Your task to perform on an android device: set the timer Image 0: 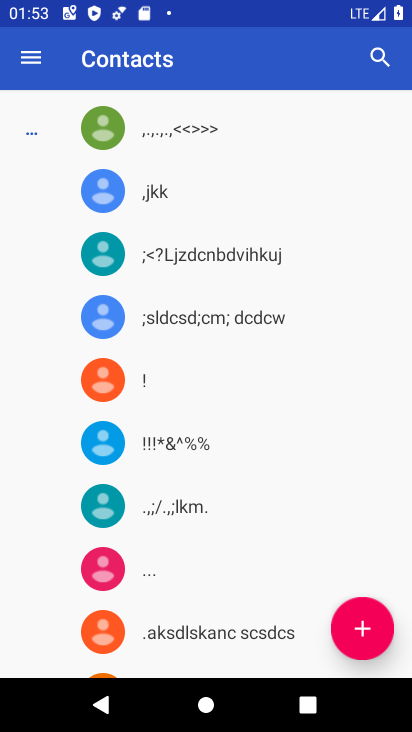
Step 0: press home button
Your task to perform on an android device: set the timer Image 1: 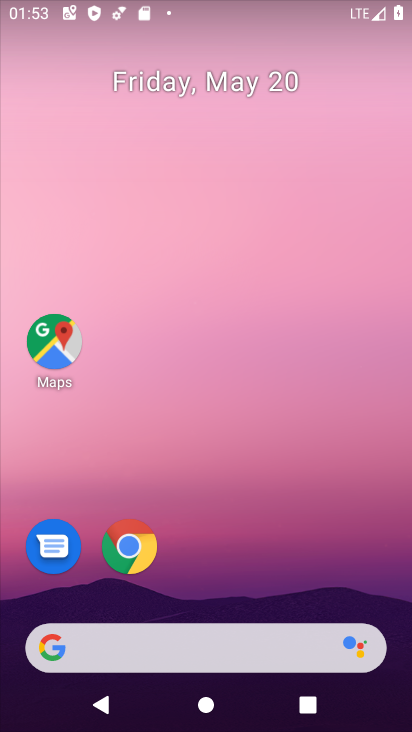
Step 1: drag from (220, 608) to (374, 438)
Your task to perform on an android device: set the timer Image 2: 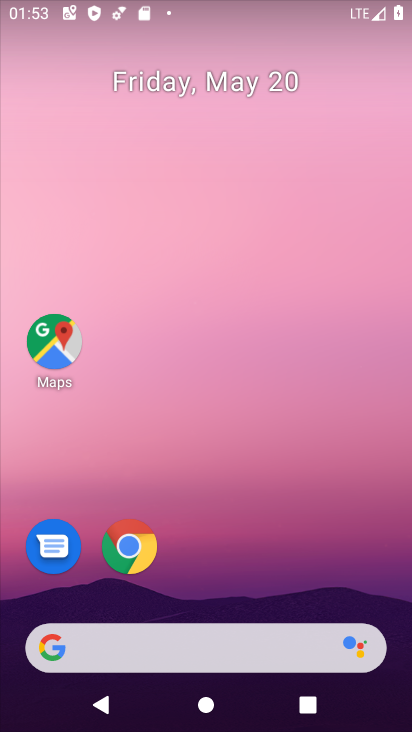
Step 2: drag from (212, 613) to (182, 5)
Your task to perform on an android device: set the timer Image 3: 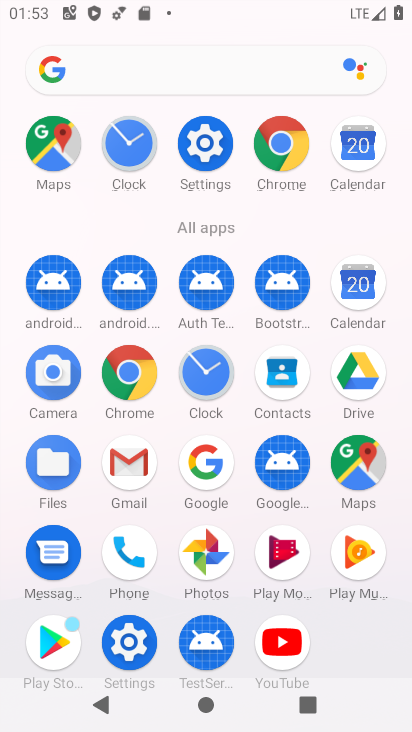
Step 3: click (216, 383)
Your task to perform on an android device: set the timer Image 4: 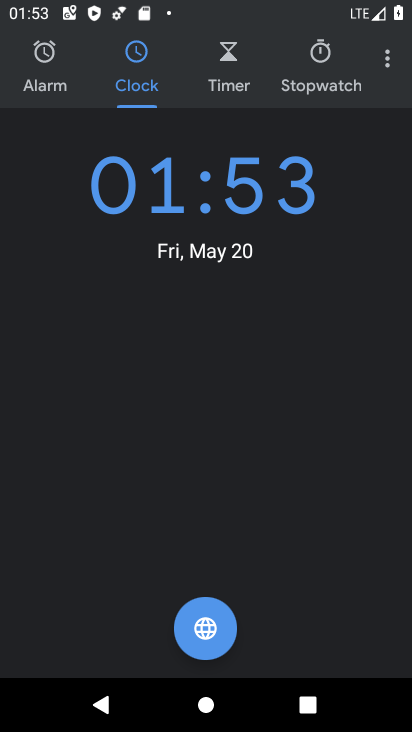
Step 4: click (222, 70)
Your task to perform on an android device: set the timer Image 5: 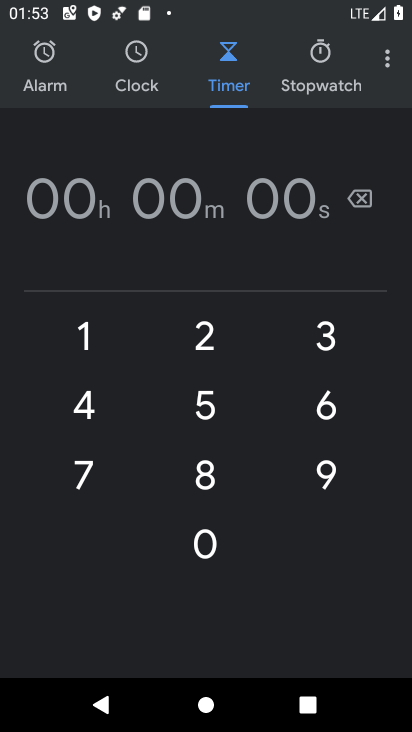
Step 5: click (200, 334)
Your task to perform on an android device: set the timer Image 6: 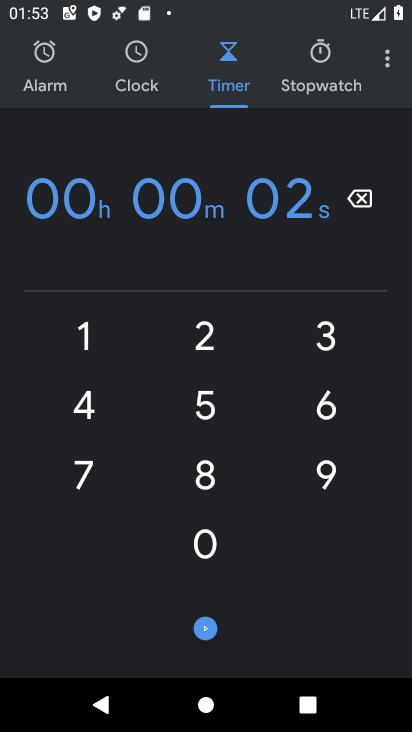
Step 6: click (215, 389)
Your task to perform on an android device: set the timer Image 7: 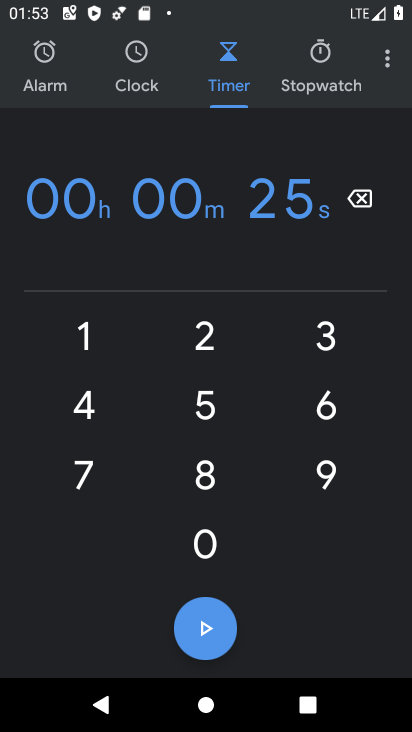
Step 7: click (191, 610)
Your task to perform on an android device: set the timer Image 8: 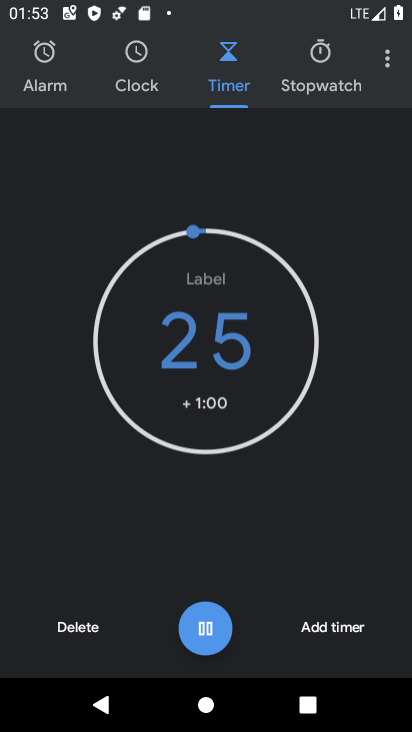
Step 8: task complete